Your task to perform on an android device: Open the calendar and show me this week's events? Image 0: 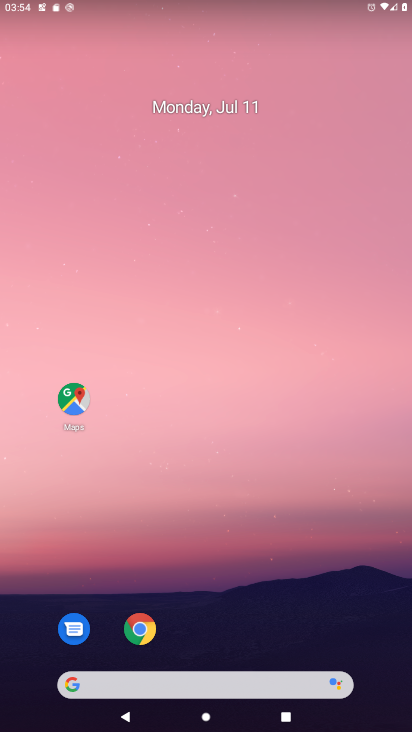
Step 0: drag from (267, 618) to (283, 117)
Your task to perform on an android device: Open the calendar and show me this week's events? Image 1: 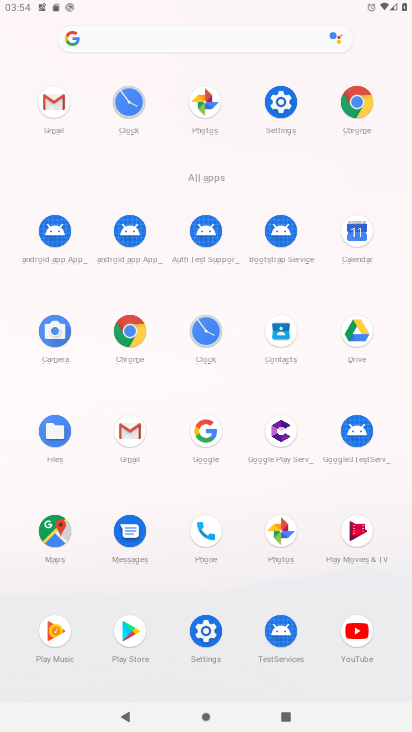
Step 1: click (359, 235)
Your task to perform on an android device: Open the calendar and show me this week's events? Image 2: 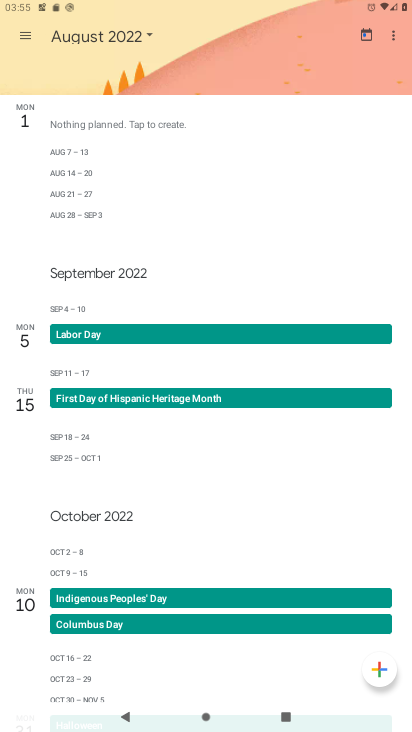
Step 2: click (135, 32)
Your task to perform on an android device: Open the calendar and show me this week's events? Image 3: 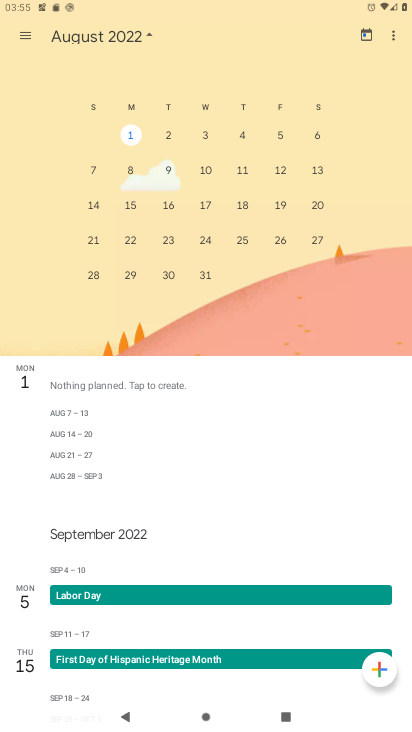
Step 3: task complete